Your task to perform on an android device: Open the calendar and show me this week's events? Image 0: 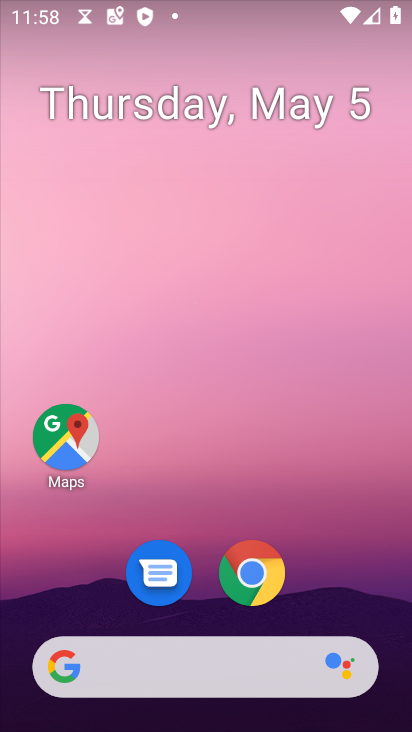
Step 0: drag from (349, 597) to (340, 321)
Your task to perform on an android device: Open the calendar and show me this week's events? Image 1: 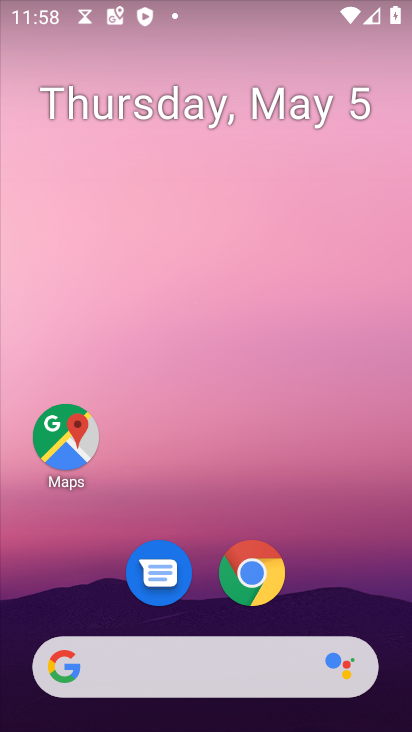
Step 1: drag from (347, 590) to (343, 196)
Your task to perform on an android device: Open the calendar and show me this week's events? Image 2: 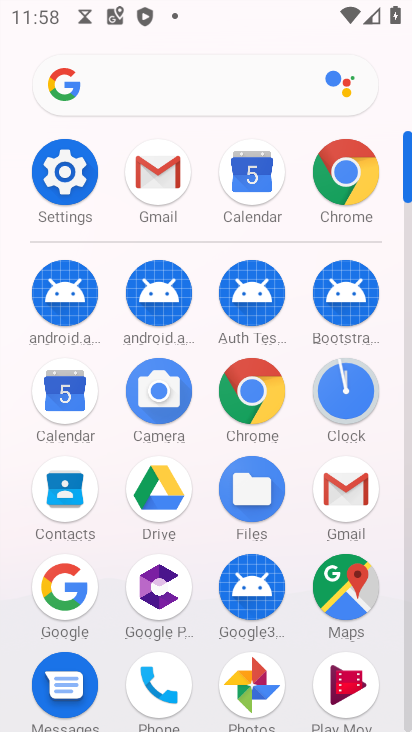
Step 2: click (66, 384)
Your task to perform on an android device: Open the calendar and show me this week's events? Image 3: 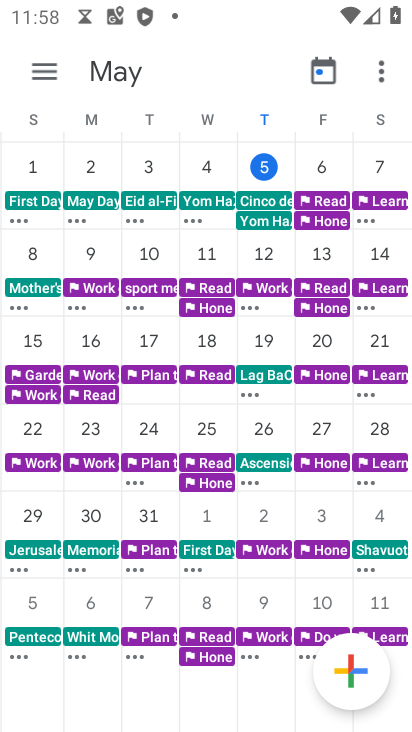
Step 3: click (41, 73)
Your task to perform on an android device: Open the calendar and show me this week's events? Image 4: 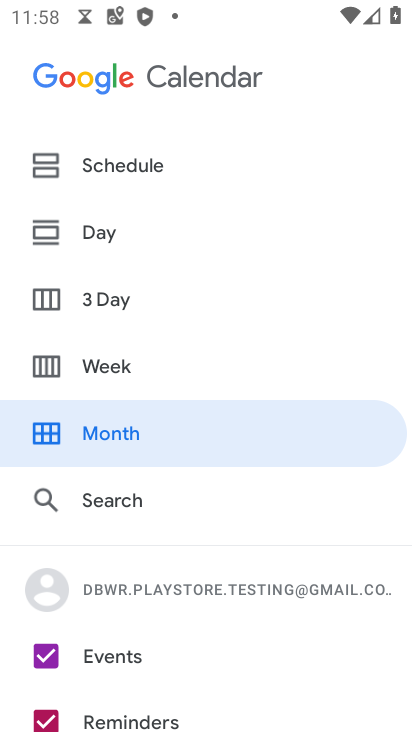
Step 4: click (91, 368)
Your task to perform on an android device: Open the calendar and show me this week's events? Image 5: 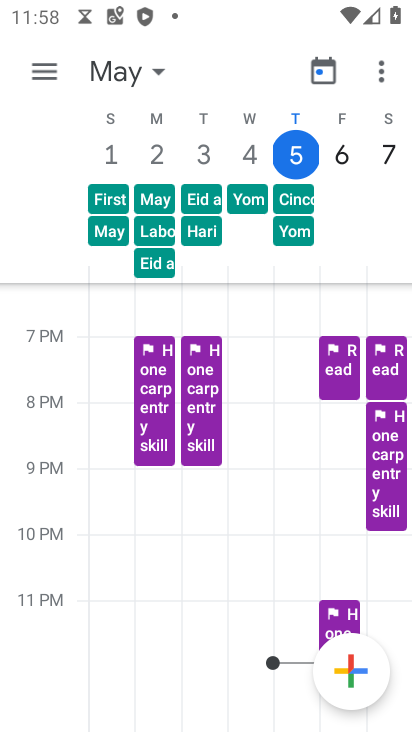
Step 5: click (297, 151)
Your task to perform on an android device: Open the calendar and show me this week's events? Image 6: 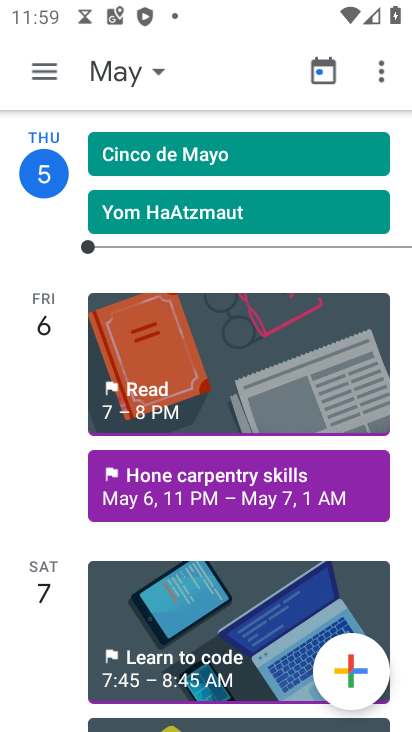
Step 6: task complete